Your task to perform on an android device: Go to wifi settings Image 0: 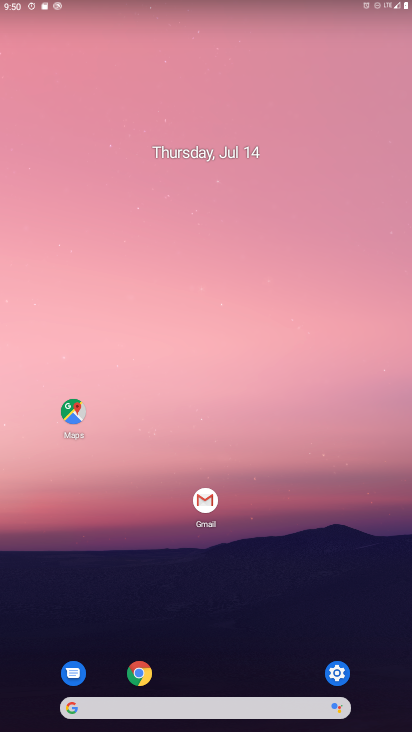
Step 0: press home button
Your task to perform on an android device: Go to wifi settings Image 1: 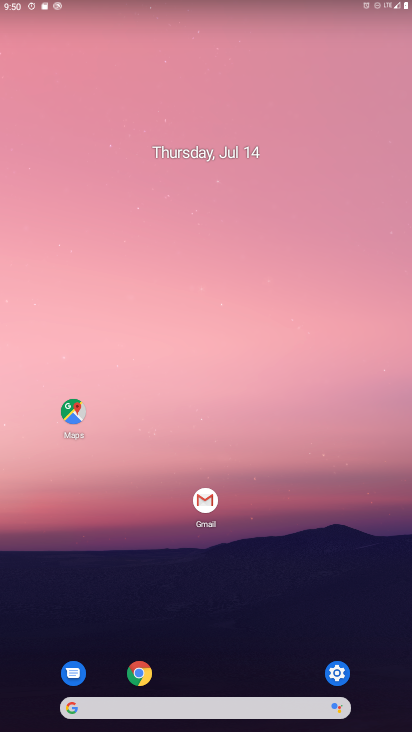
Step 1: click (349, 675)
Your task to perform on an android device: Go to wifi settings Image 2: 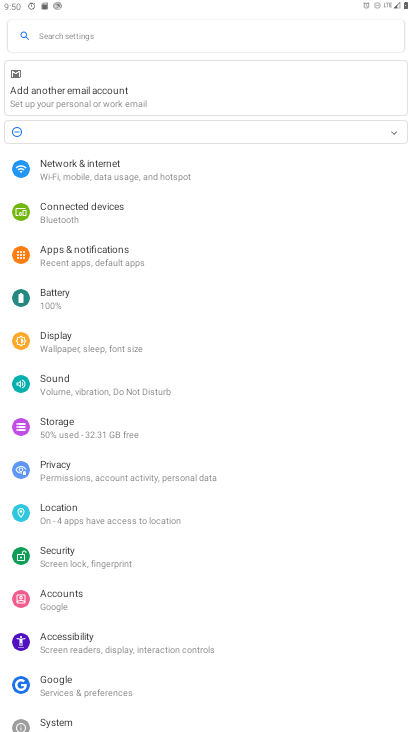
Step 2: click (134, 172)
Your task to perform on an android device: Go to wifi settings Image 3: 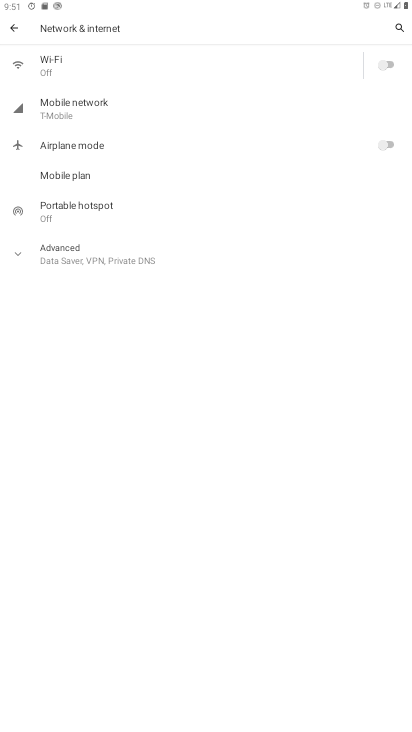
Step 3: task complete